Your task to perform on an android device: make emails show in primary in the gmail app Image 0: 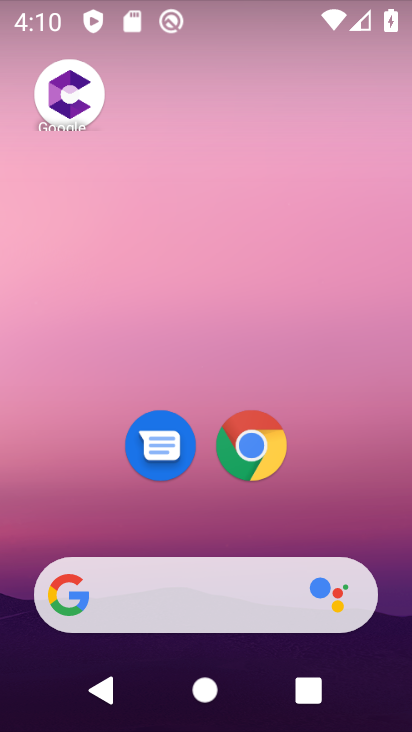
Step 0: drag from (227, 523) to (211, 6)
Your task to perform on an android device: make emails show in primary in the gmail app Image 1: 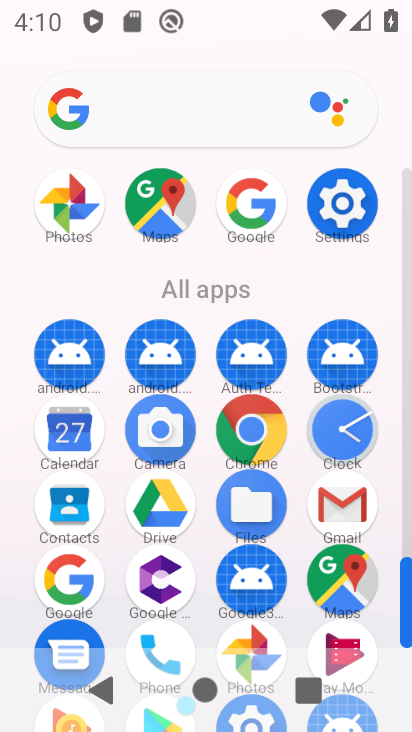
Step 1: click (343, 511)
Your task to perform on an android device: make emails show in primary in the gmail app Image 2: 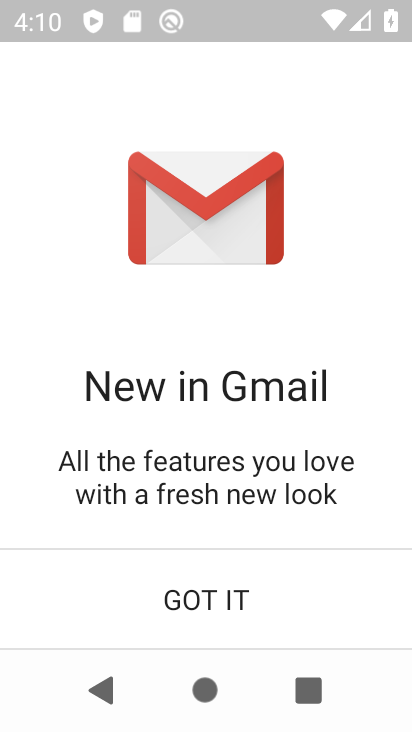
Step 2: click (206, 594)
Your task to perform on an android device: make emails show in primary in the gmail app Image 3: 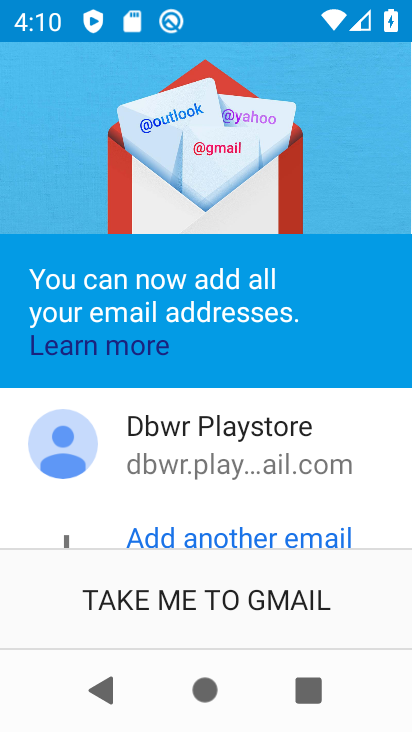
Step 3: click (207, 595)
Your task to perform on an android device: make emails show in primary in the gmail app Image 4: 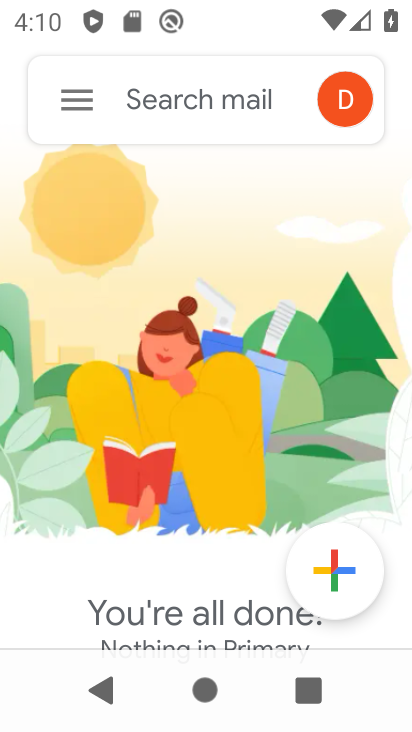
Step 4: click (71, 103)
Your task to perform on an android device: make emails show in primary in the gmail app Image 5: 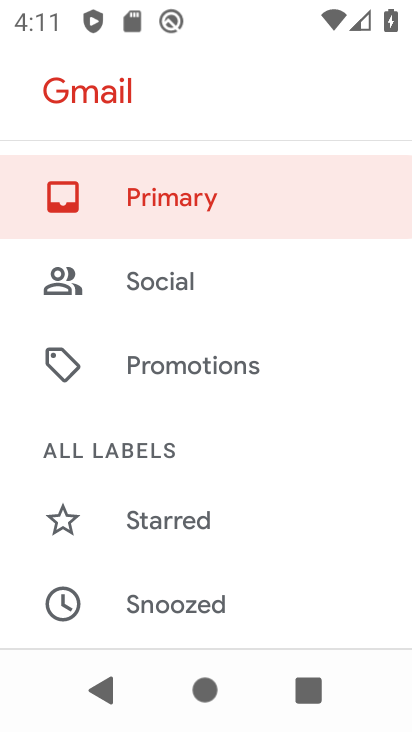
Step 5: drag from (181, 563) to (216, 111)
Your task to perform on an android device: make emails show in primary in the gmail app Image 6: 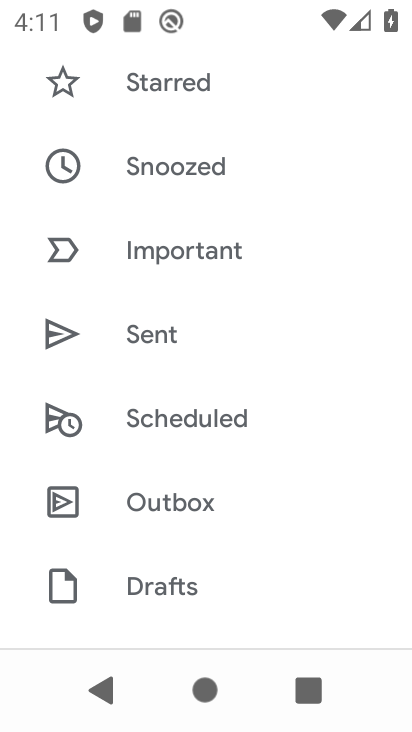
Step 6: drag from (190, 553) to (227, 218)
Your task to perform on an android device: make emails show in primary in the gmail app Image 7: 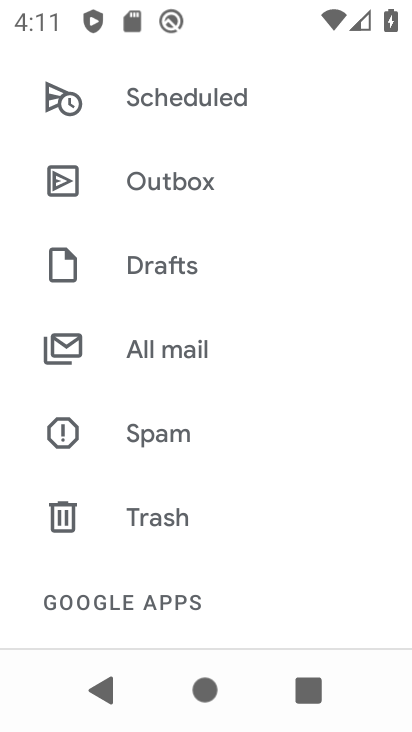
Step 7: drag from (168, 527) to (217, 234)
Your task to perform on an android device: make emails show in primary in the gmail app Image 8: 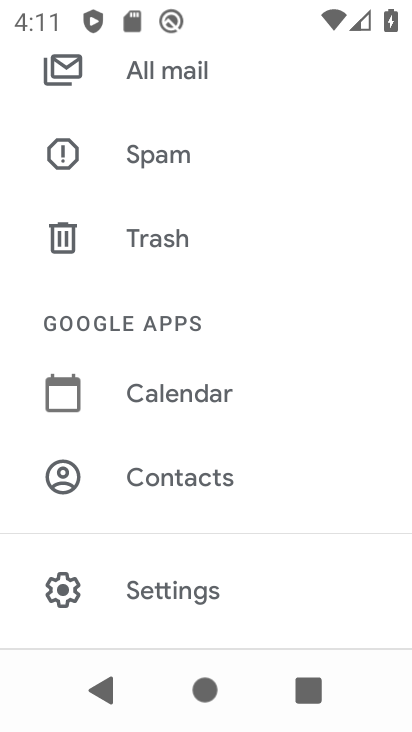
Step 8: click (173, 582)
Your task to perform on an android device: make emails show in primary in the gmail app Image 9: 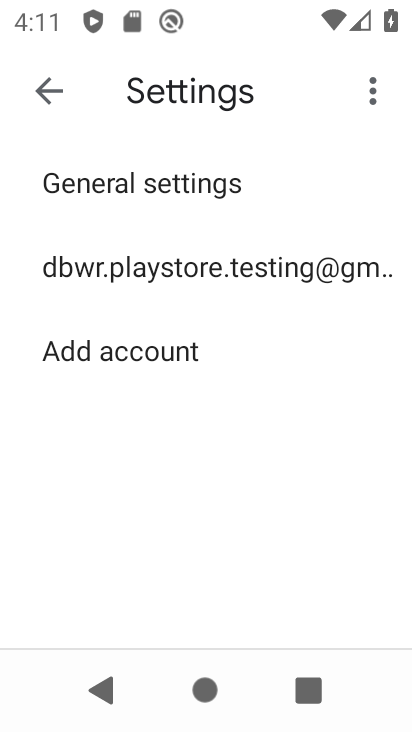
Step 9: click (167, 264)
Your task to perform on an android device: make emails show in primary in the gmail app Image 10: 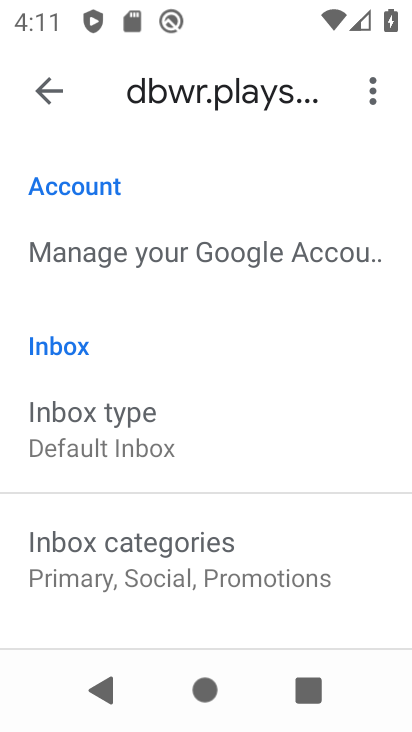
Step 10: click (186, 567)
Your task to perform on an android device: make emails show in primary in the gmail app Image 11: 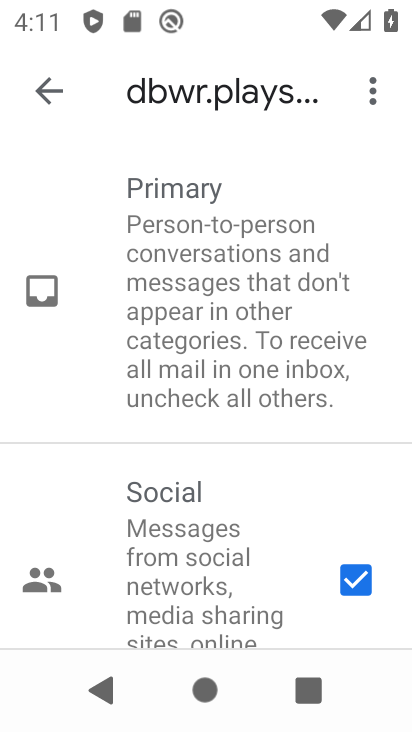
Step 11: click (353, 580)
Your task to perform on an android device: make emails show in primary in the gmail app Image 12: 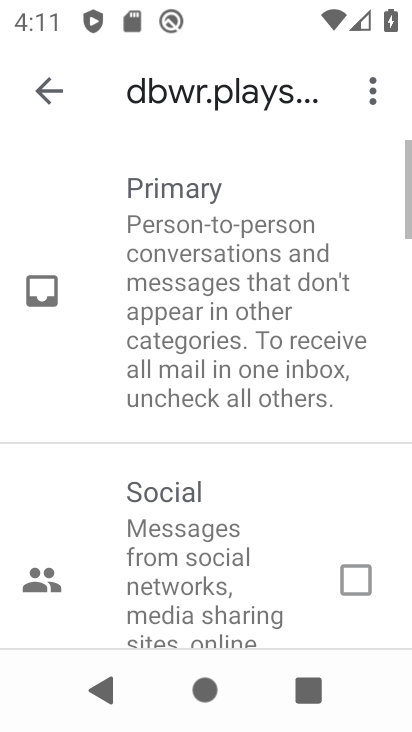
Step 12: drag from (204, 587) to (214, 228)
Your task to perform on an android device: make emails show in primary in the gmail app Image 13: 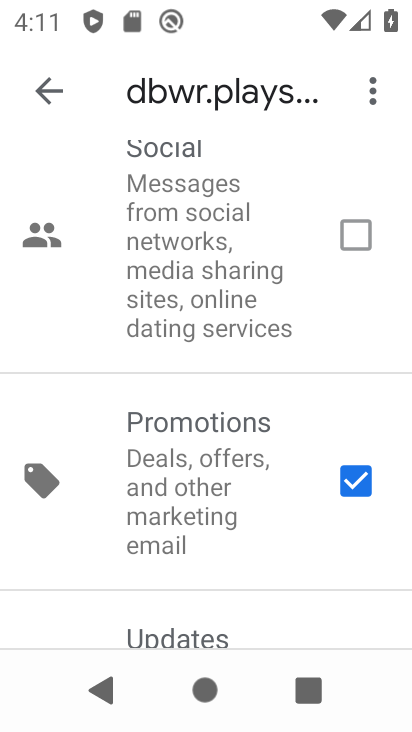
Step 13: drag from (210, 577) to (254, 488)
Your task to perform on an android device: make emails show in primary in the gmail app Image 14: 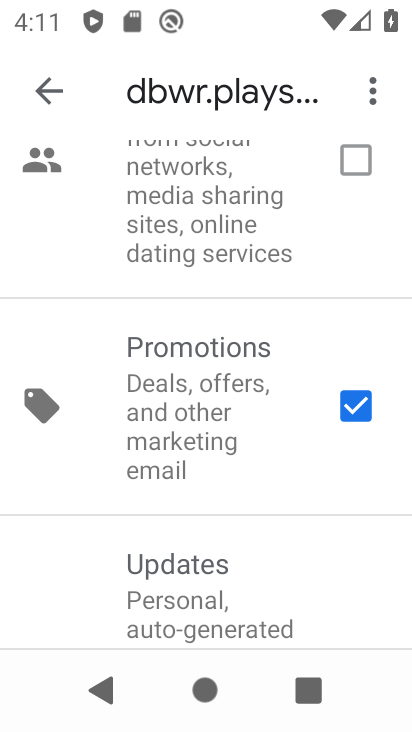
Step 14: click (360, 400)
Your task to perform on an android device: make emails show in primary in the gmail app Image 15: 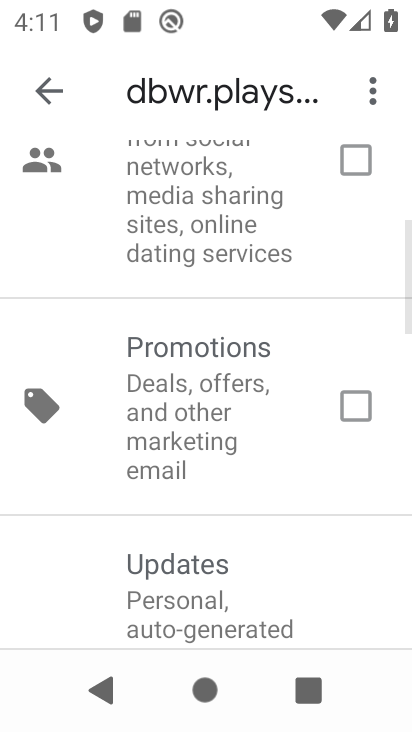
Step 15: task complete